Your task to perform on an android device: remove spam from my inbox in the gmail app Image 0: 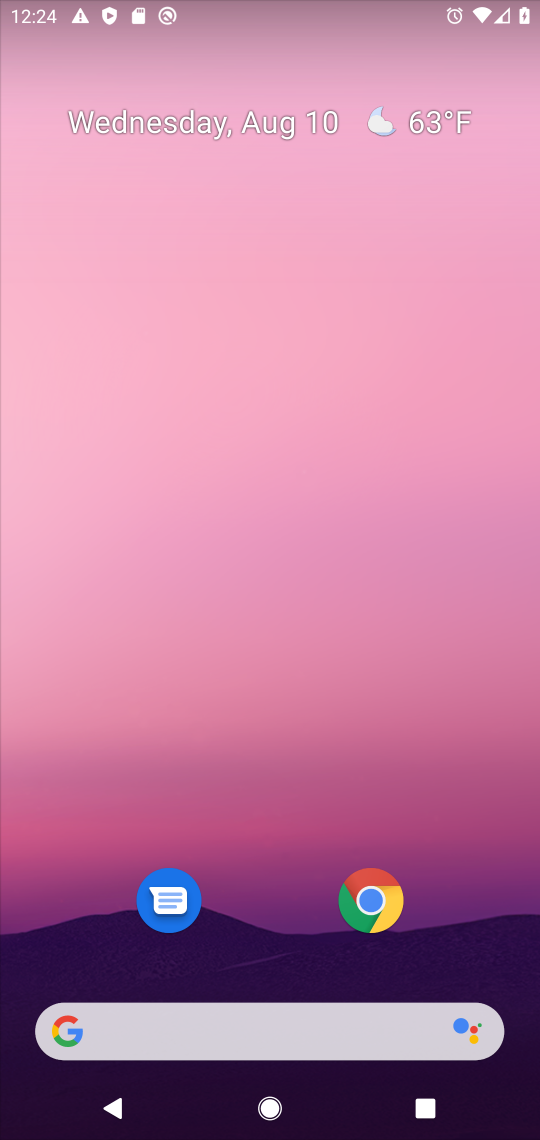
Step 0: drag from (292, 604) to (309, 1)
Your task to perform on an android device: remove spam from my inbox in the gmail app Image 1: 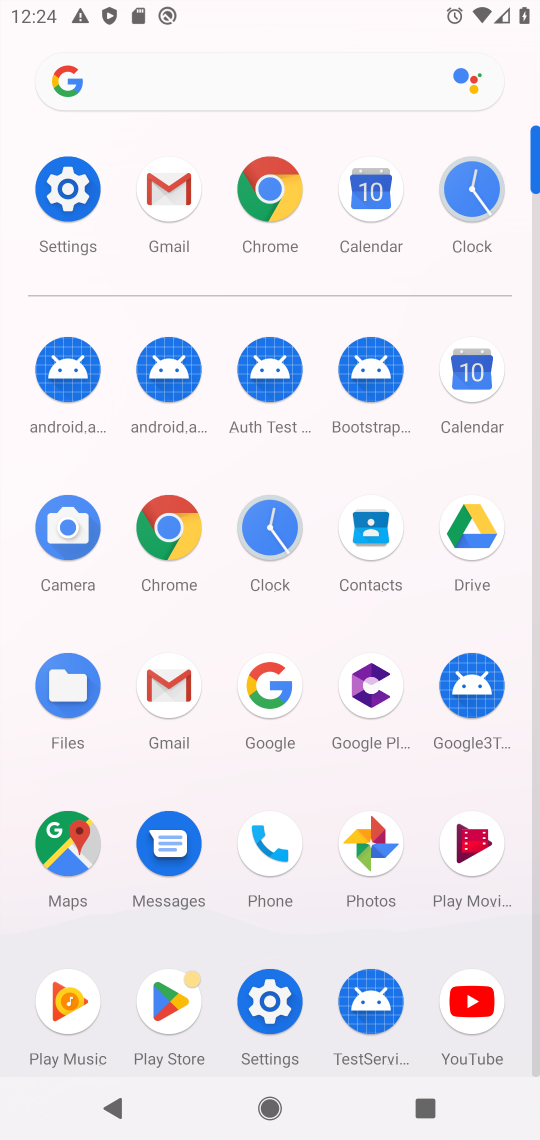
Step 1: click (175, 203)
Your task to perform on an android device: remove spam from my inbox in the gmail app Image 2: 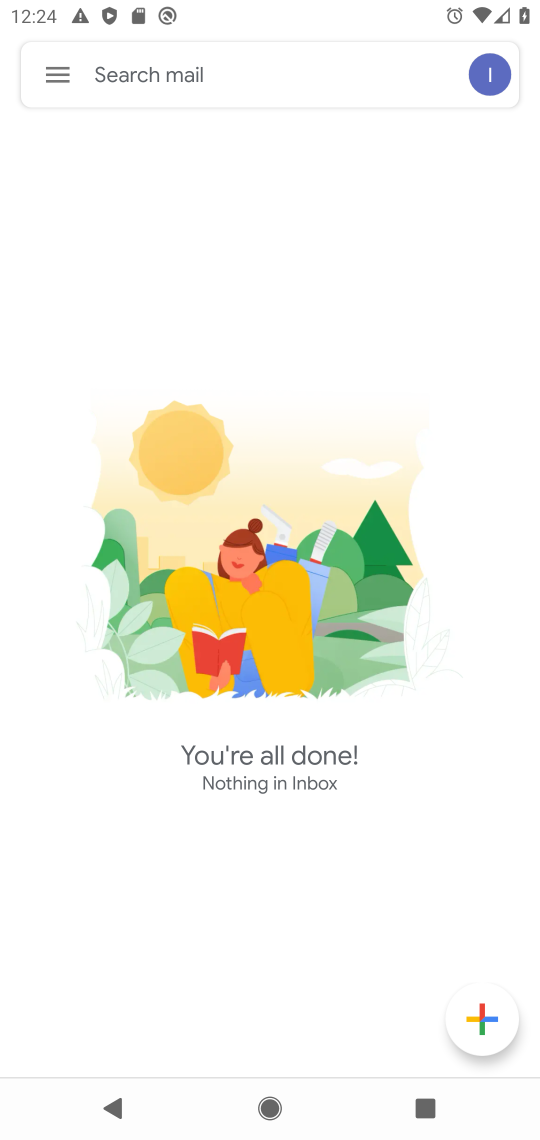
Step 2: task complete